Your task to perform on an android device: create a new album in the google photos Image 0: 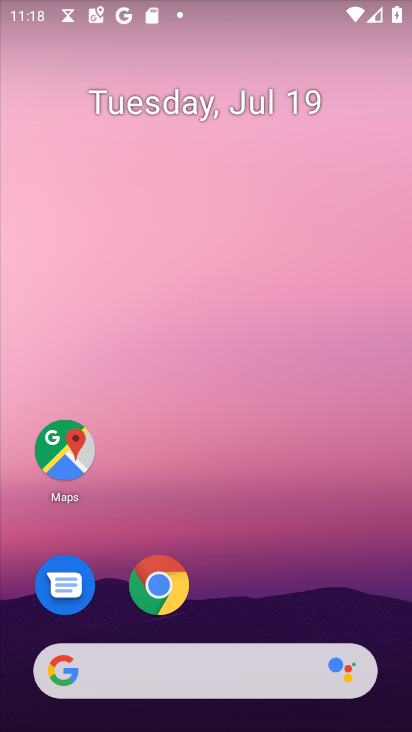
Step 0: press home button
Your task to perform on an android device: create a new album in the google photos Image 1: 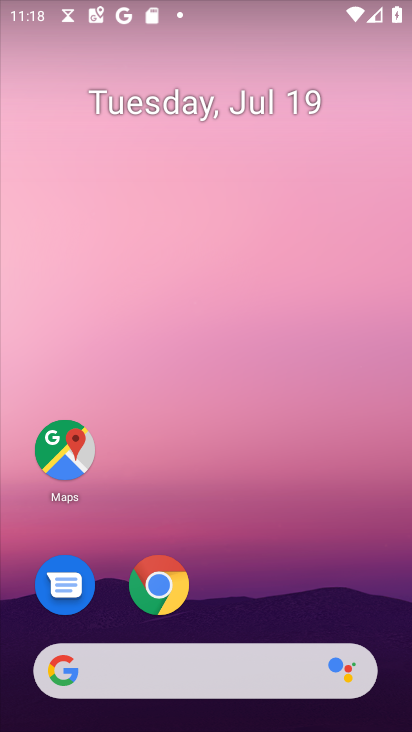
Step 1: drag from (183, 680) to (326, 108)
Your task to perform on an android device: create a new album in the google photos Image 2: 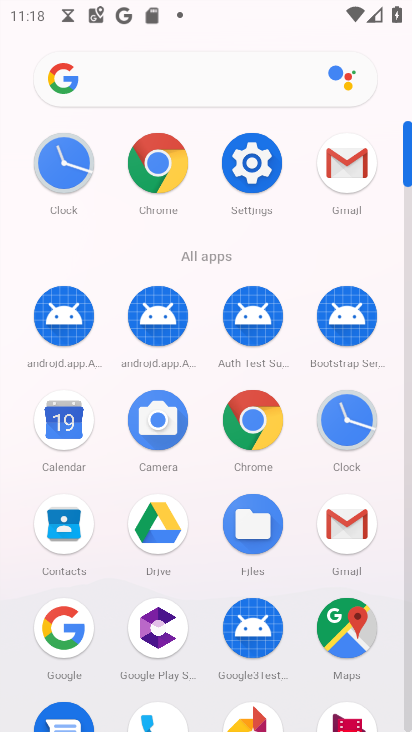
Step 2: drag from (200, 507) to (359, 99)
Your task to perform on an android device: create a new album in the google photos Image 3: 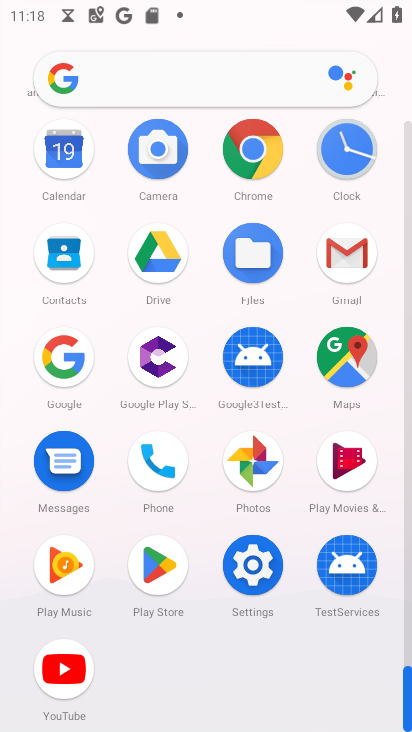
Step 3: click (259, 470)
Your task to perform on an android device: create a new album in the google photos Image 4: 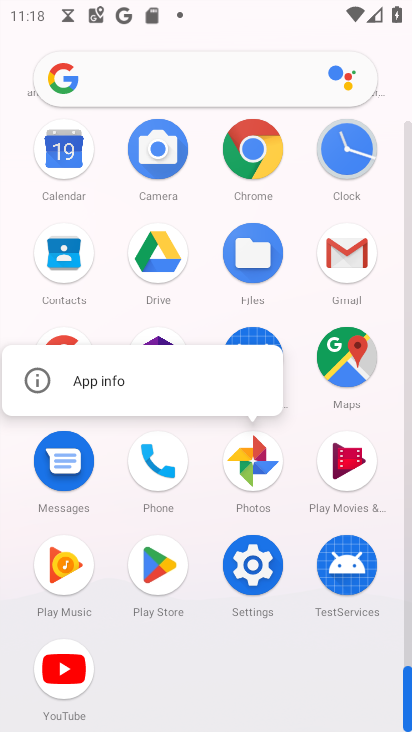
Step 4: click (253, 463)
Your task to perform on an android device: create a new album in the google photos Image 5: 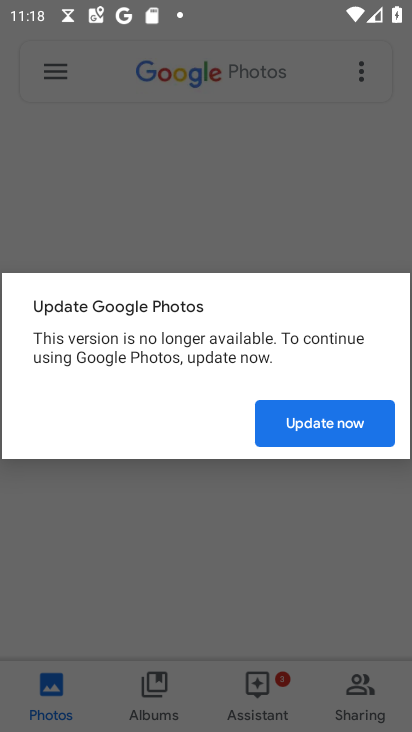
Step 5: click (324, 419)
Your task to perform on an android device: create a new album in the google photos Image 6: 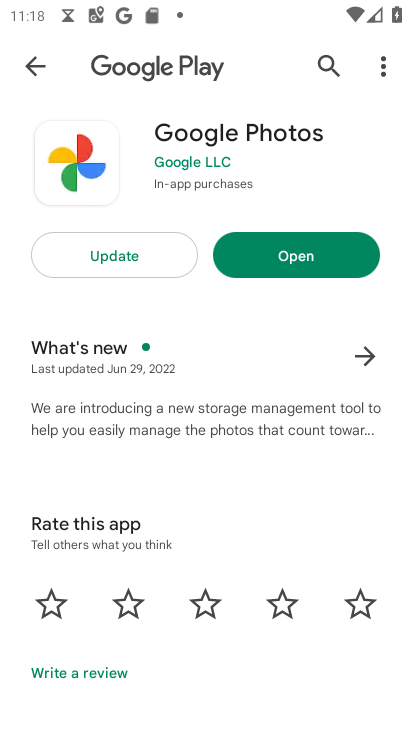
Step 6: click (321, 258)
Your task to perform on an android device: create a new album in the google photos Image 7: 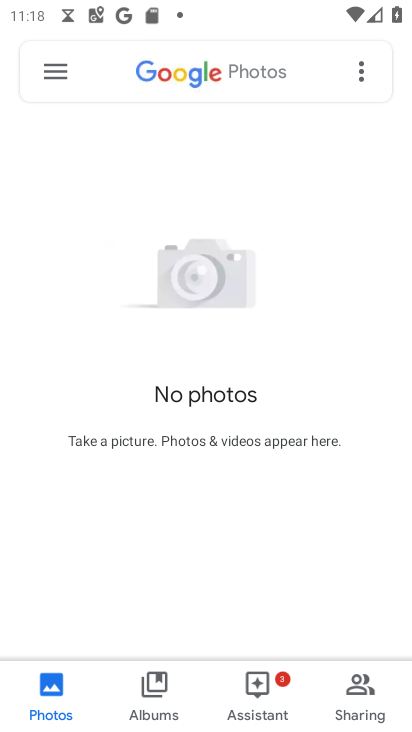
Step 7: click (156, 694)
Your task to perform on an android device: create a new album in the google photos Image 8: 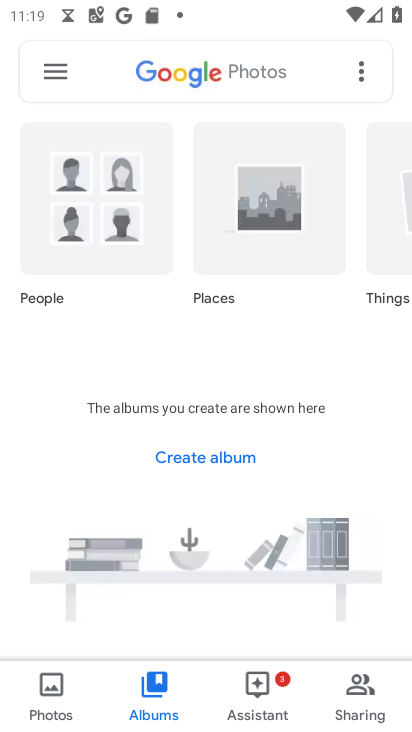
Step 8: task complete